Your task to perform on an android device: Turn on the flashlight Image 0: 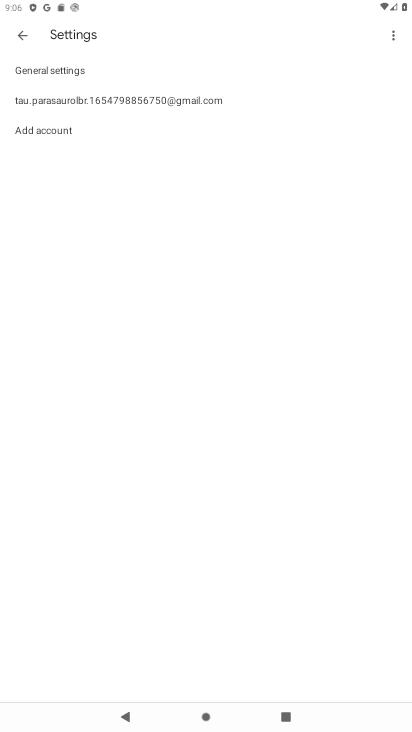
Step 0: press home button
Your task to perform on an android device: Turn on the flashlight Image 1: 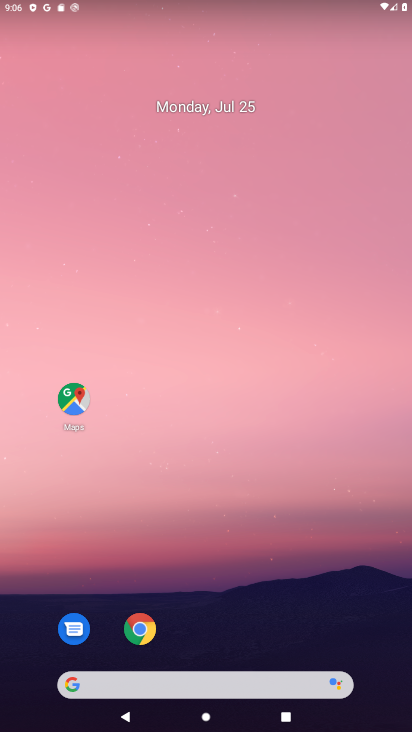
Step 1: drag from (261, 649) to (348, 78)
Your task to perform on an android device: Turn on the flashlight Image 2: 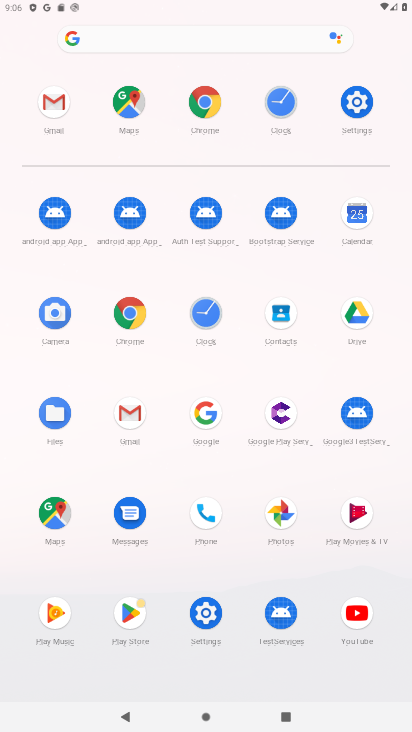
Step 2: click (371, 121)
Your task to perform on an android device: Turn on the flashlight Image 3: 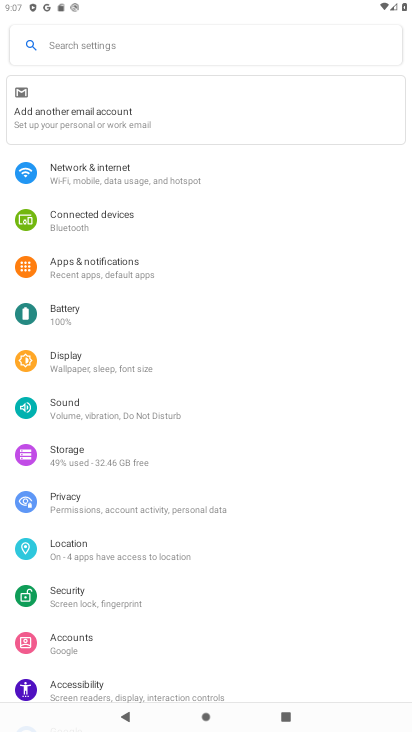
Step 3: task complete